Your task to perform on an android device: set an alarm Image 0: 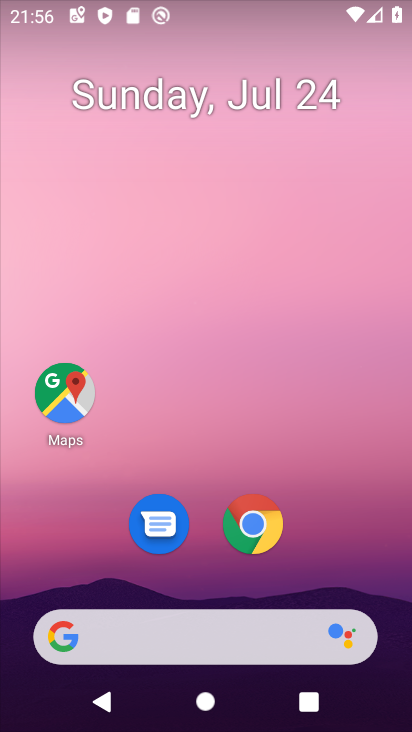
Step 0: drag from (266, 533) to (390, 64)
Your task to perform on an android device: set an alarm Image 1: 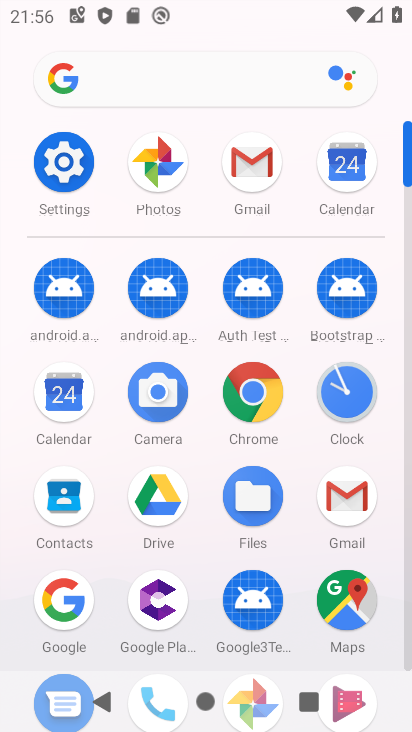
Step 1: click (348, 395)
Your task to perform on an android device: set an alarm Image 2: 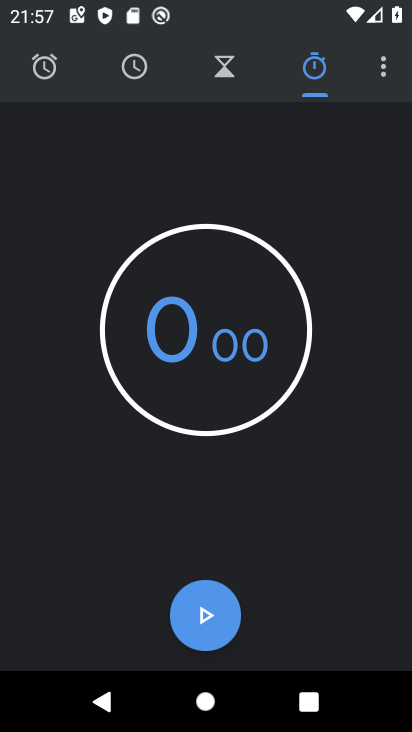
Step 2: click (41, 74)
Your task to perform on an android device: set an alarm Image 3: 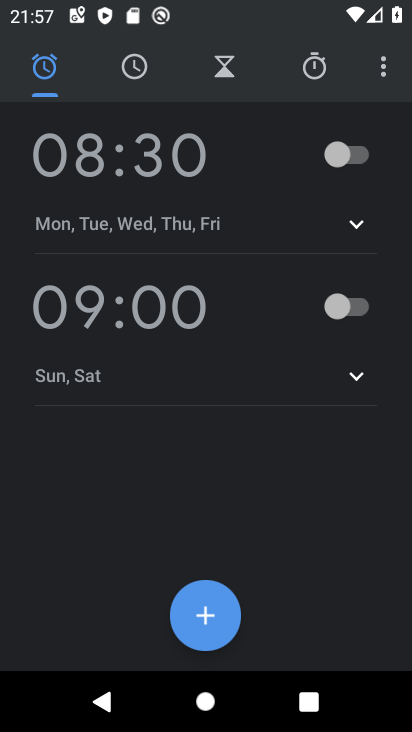
Step 3: click (358, 155)
Your task to perform on an android device: set an alarm Image 4: 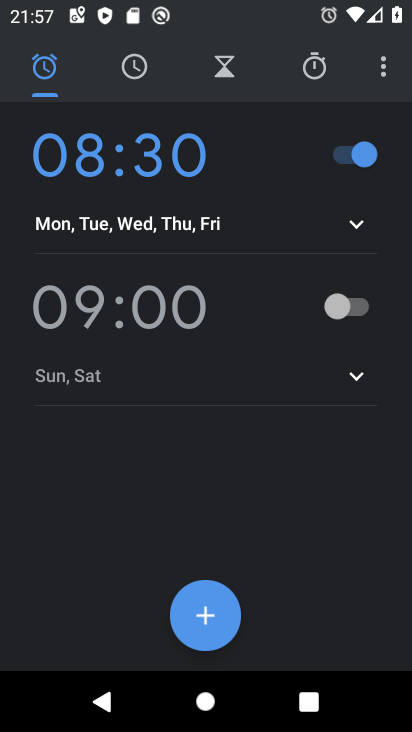
Step 4: task complete